Your task to perform on an android device: Open the map Image 0: 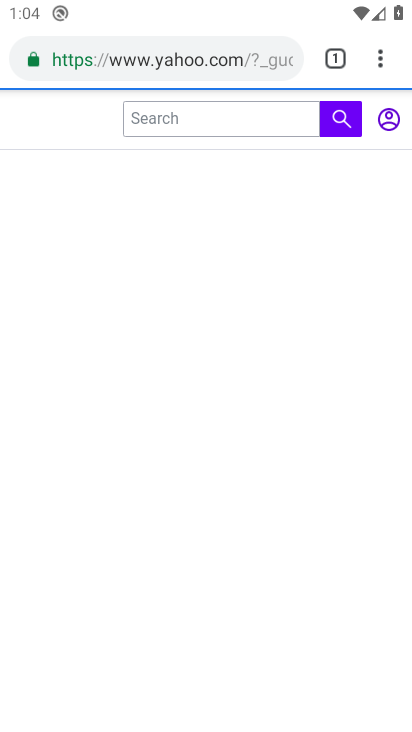
Step 0: press back button
Your task to perform on an android device: Open the map Image 1: 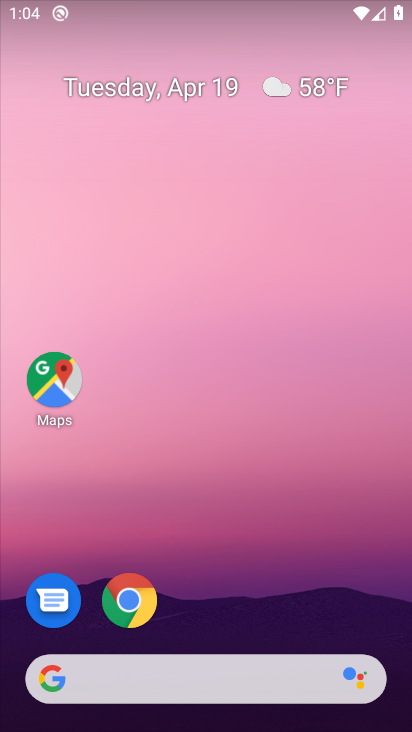
Step 1: drag from (184, 631) to (318, 80)
Your task to perform on an android device: Open the map Image 2: 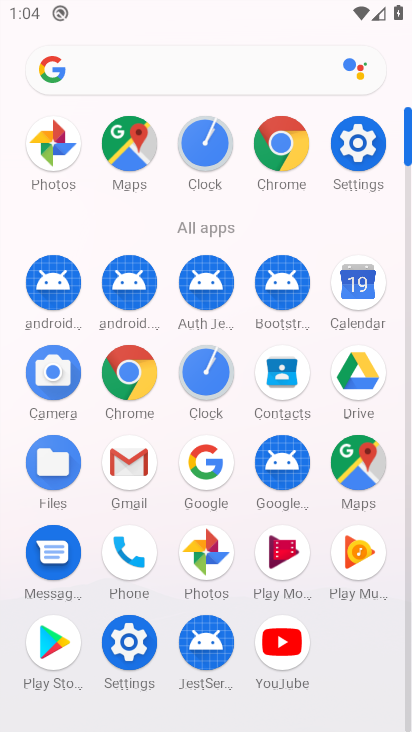
Step 2: click (359, 458)
Your task to perform on an android device: Open the map Image 3: 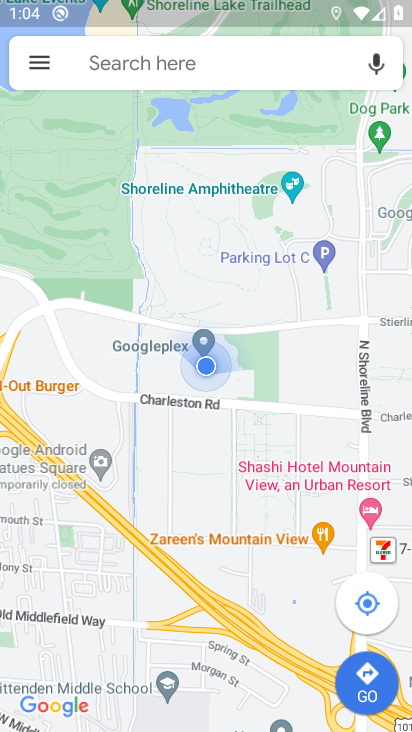
Step 3: task complete